Your task to perform on an android device: toggle show notifications on the lock screen Image 0: 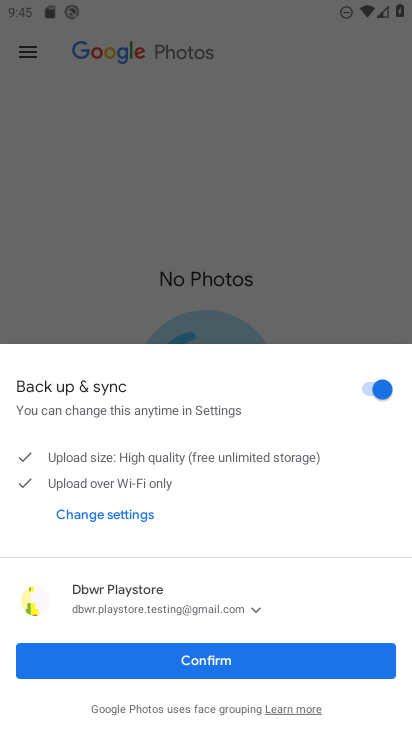
Step 0: press home button
Your task to perform on an android device: toggle show notifications on the lock screen Image 1: 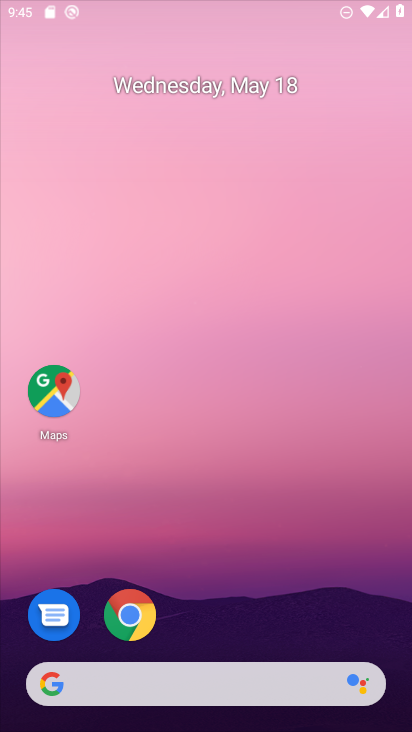
Step 1: drag from (215, 590) to (220, 78)
Your task to perform on an android device: toggle show notifications on the lock screen Image 2: 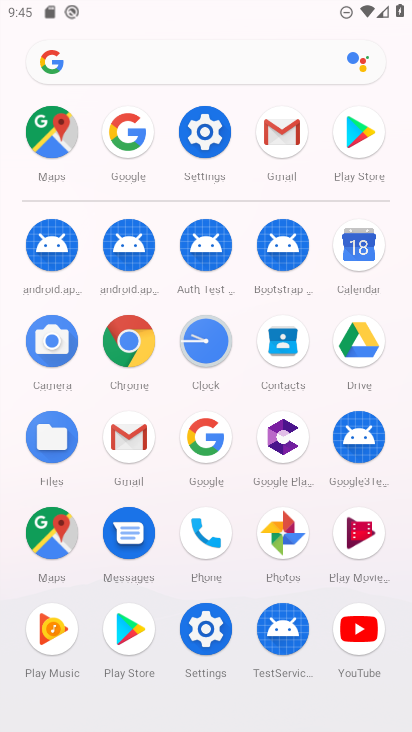
Step 2: click (208, 127)
Your task to perform on an android device: toggle show notifications on the lock screen Image 3: 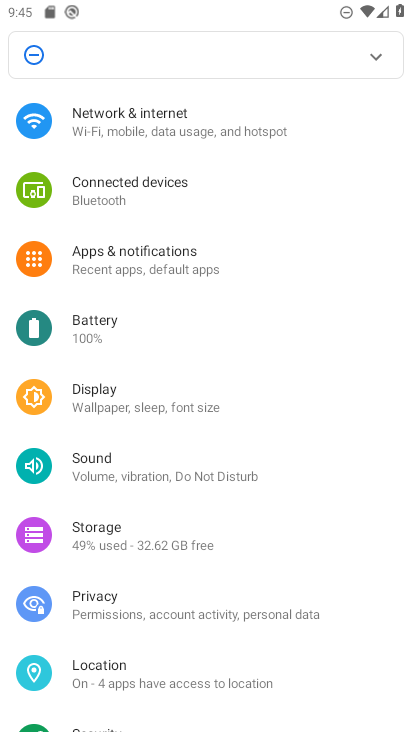
Step 3: click (160, 254)
Your task to perform on an android device: toggle show notifications on the lock screen Image 4: 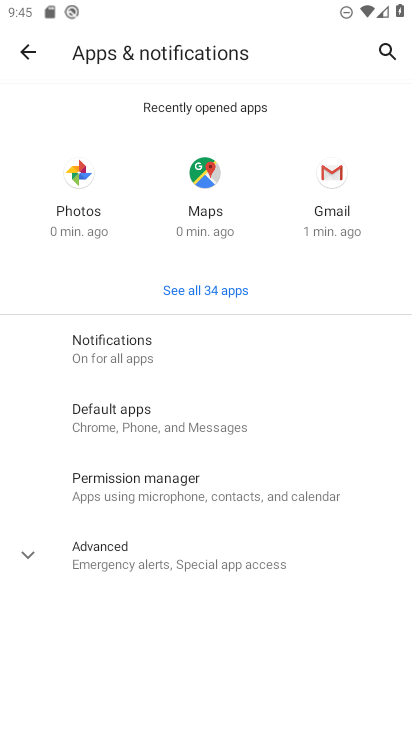
Step 4: click (141, 353)
Your task to perform on an android device: toggle show notifications on the lock screen Image 5: 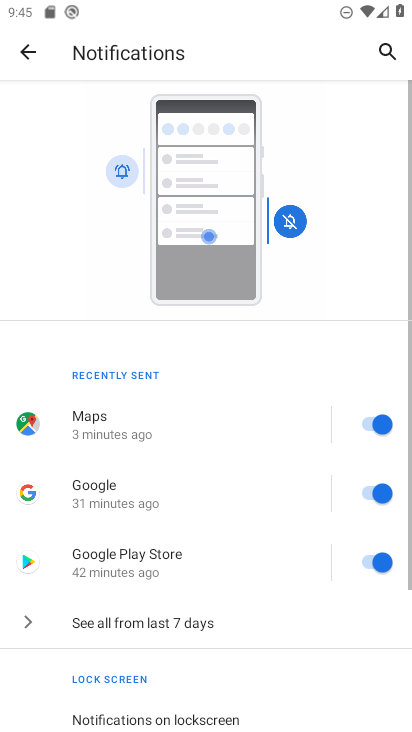
Step 5: drag from (208, 624) to (223, 312)
Your task to perform on an android device: toggle show notifications on the lock screen Image 6: 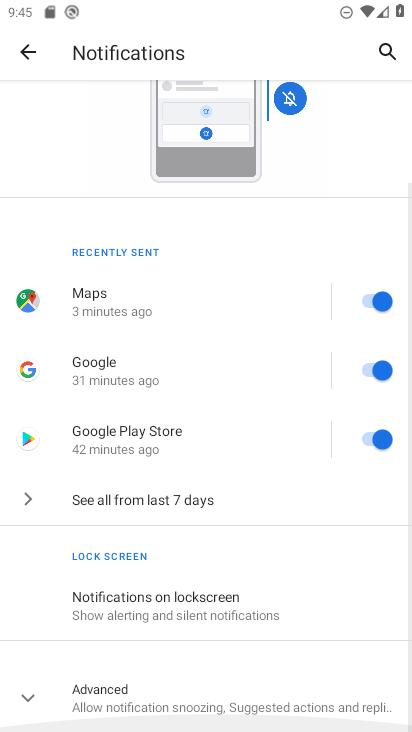
Step 6: click (124, 610)
Your task to perform on an android device: toggle show notifications on the lock screen Image 7: 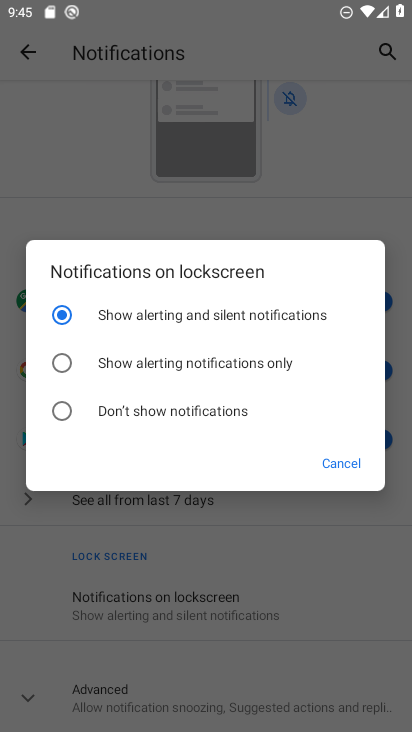
Step 7: click (58, 412)
Your task to perform on an android device: toggle show notifications on the lock screen Image 8: 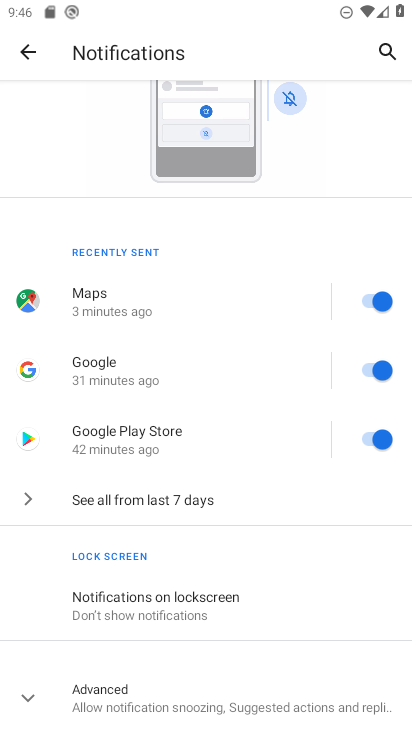
Step 8: task complete